Your task to perform on an android device: Is it going to rain today? Image 0: 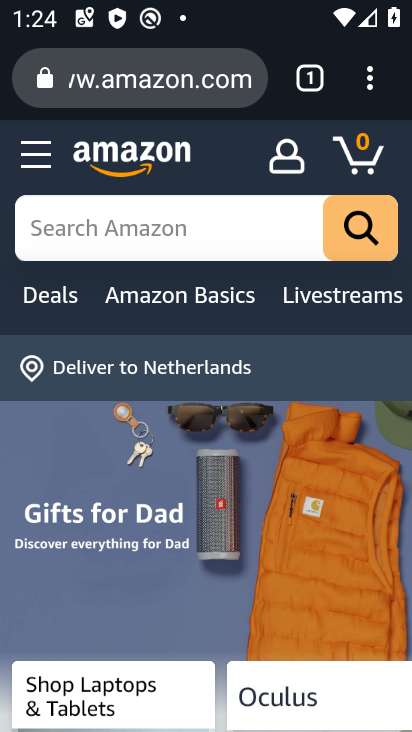
Step 0: press home button
Your task to perform on an android device: Is it going to rain today? Image 1: 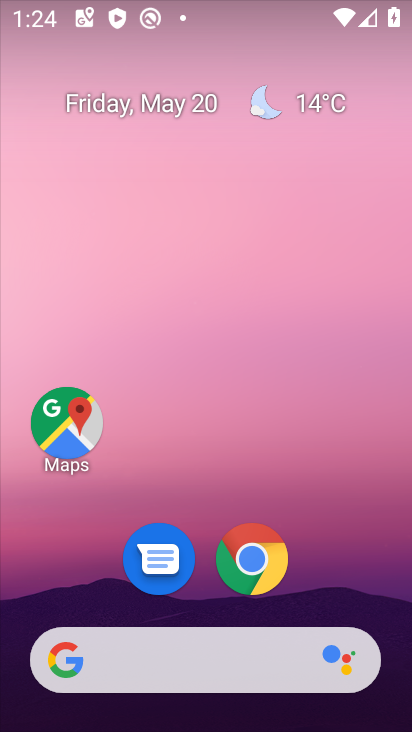
Step 1: click (230, 667)
Your task to perform on an android device: Is it going to rain today? Image 2: 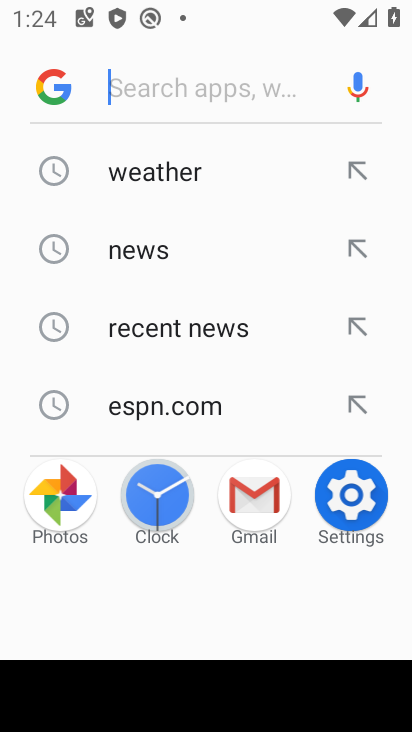
Step 2: click (246, 171)
Your task to perform on an android device: Is it going to rain today? Image 3: 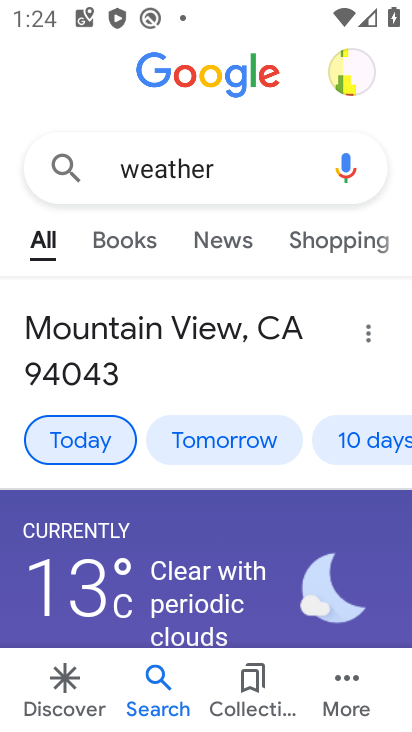
Step 3: task complete